Your task to perform on an android device: Go to notification settings Image 0: 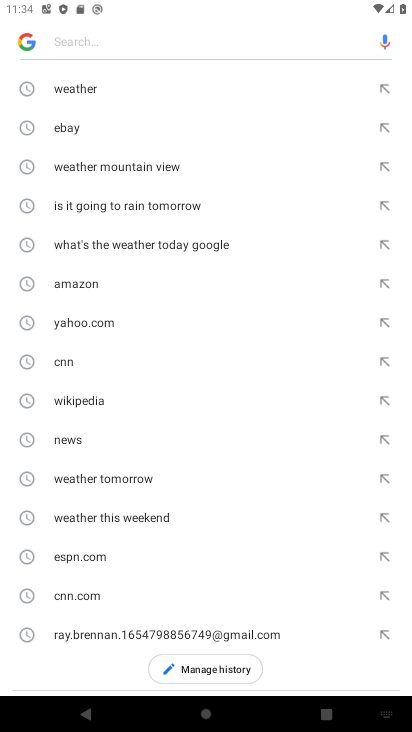
Step 0: press home button
Your task to perform on an android device: Go to notification settings Image 1: 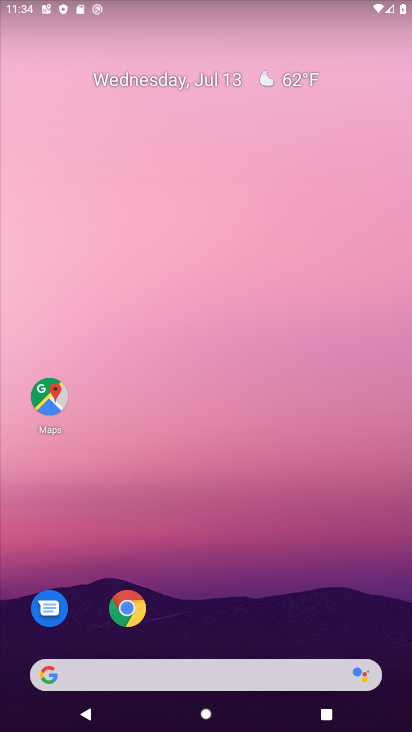
Step 1: drag from (233, 729) to (254, 174)
Your task to perform on an android device: Go to notification settings Image 2: 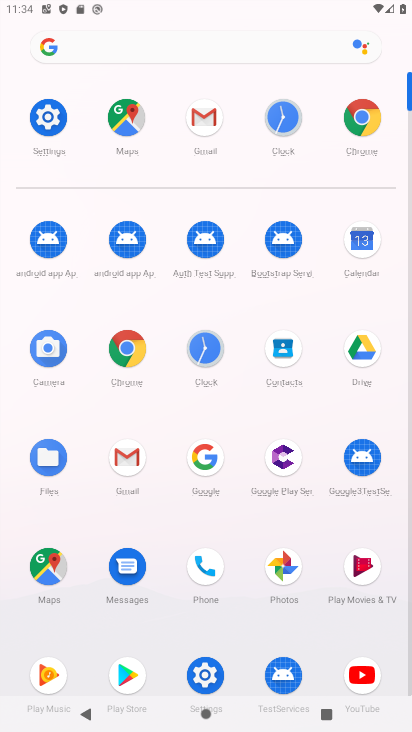
Step 2: click (53, 117)
Your task to perform on an android device: Go to notification settings Image 3: 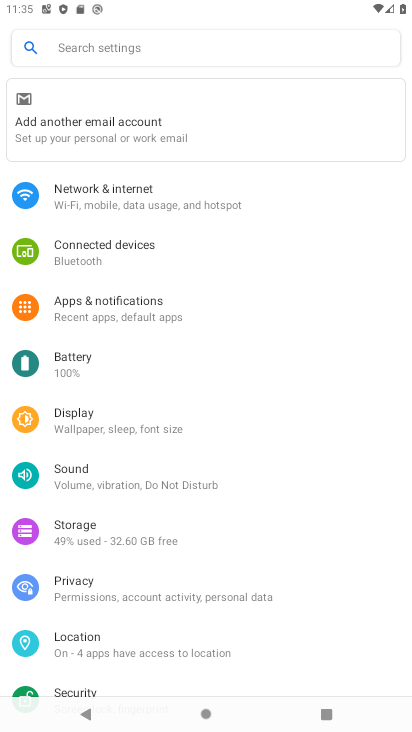
Step 3: click (89, 309)
Your task to perform on an android device: Go to notification settings Image 4: 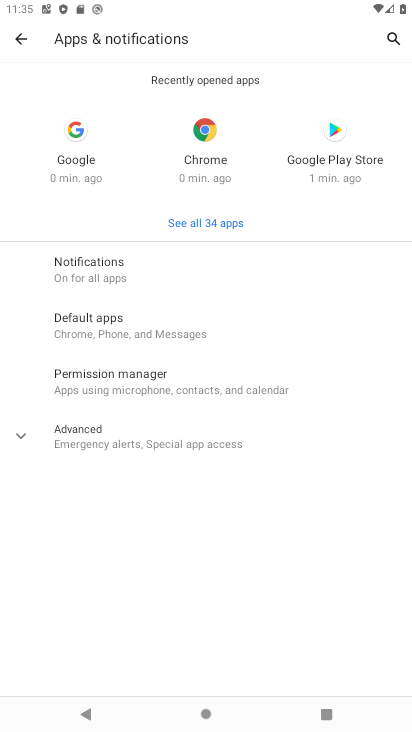
Step 4: click (77, 273)
Your task to perform on an android device: Go to notification settings Image 5: 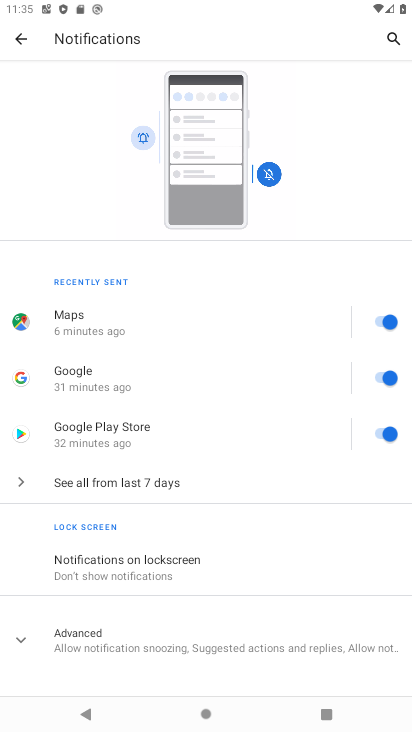
Step 5: task complete